Your task to perform on an android device: Open my contact list Image 0: 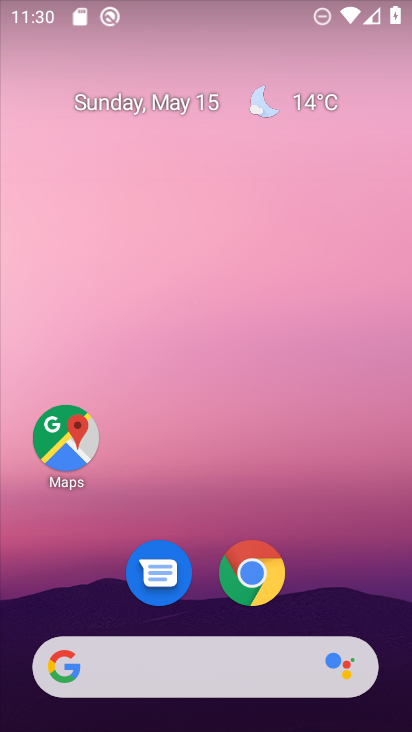
Step 0: drag from (274, 440) to (190, 67)
Your task to perform on an android device: Open my contact list Image 1: 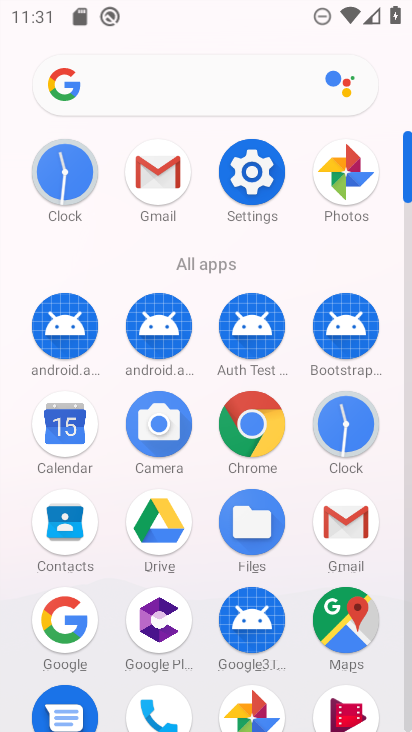
Step 1: click (63, 524)
Your task to perform on an android device: Open my contact list Image 2: 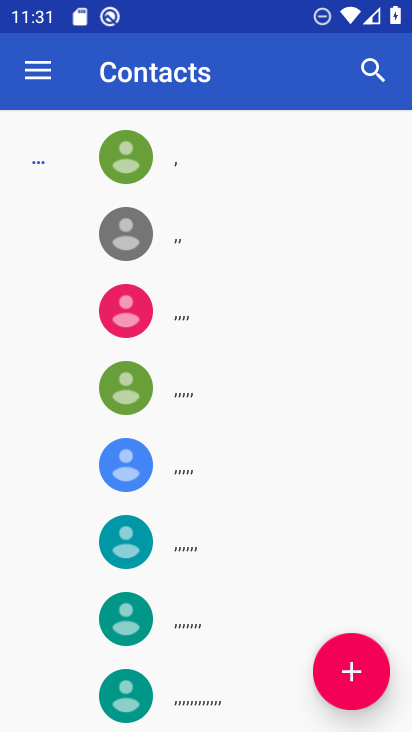
Step 2: task complete